Your task to perform on an android device: open app "Pandora - Music & Podcasts" (install if not already installed), go to login, and select forgot password Image 0: 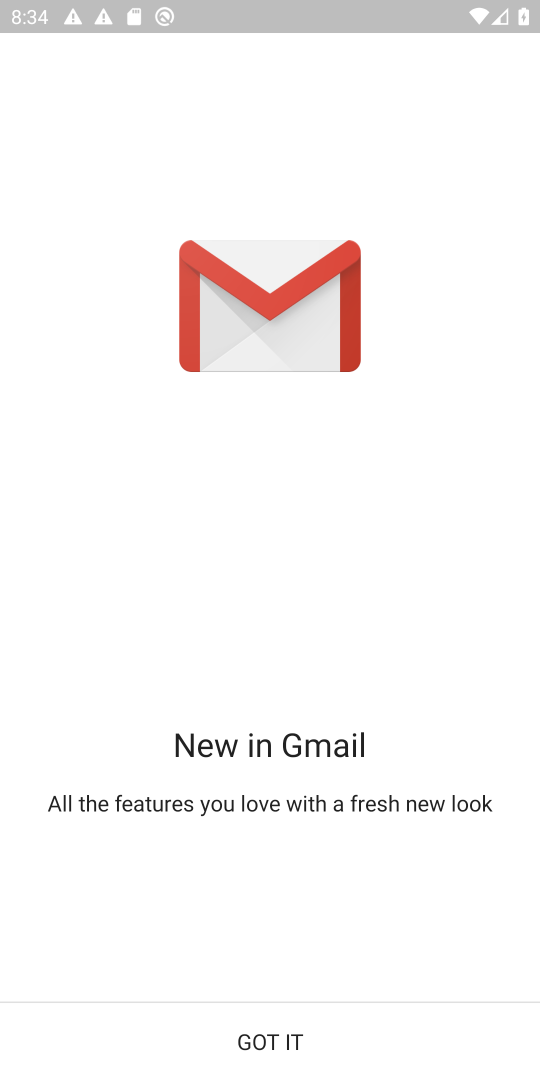
Step 0: press home button
Your task to perform on an android device: open app "Pandora - Music & Podcasts" (install if not already installed), go to login, and select forgot password Image 1: 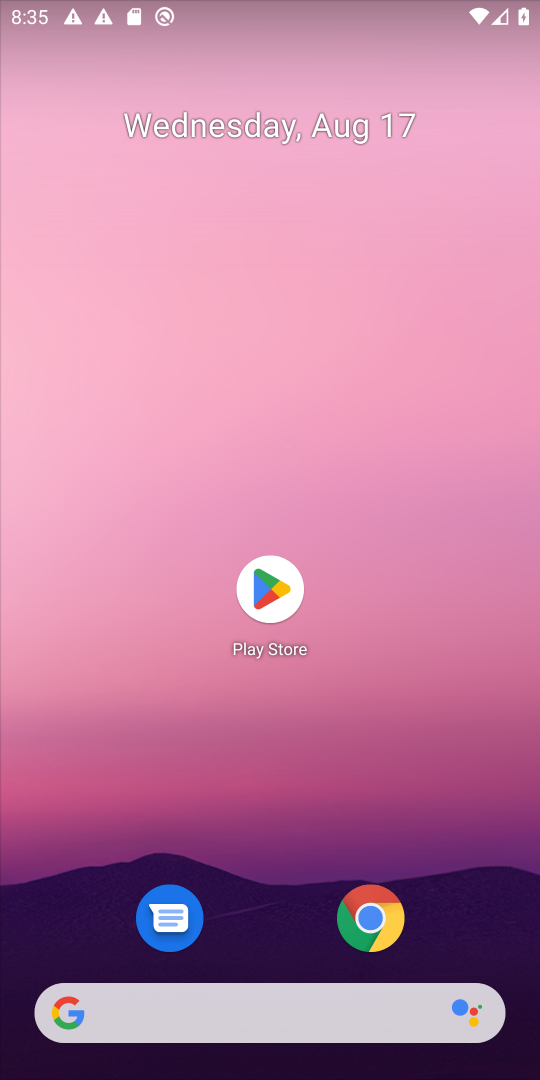
Step 1: click (271, 592)
Your task to perform on an android device: open app "Pandora - Music & Podcasts" (install if not already installed), go to login, and select forgot password Image 2: 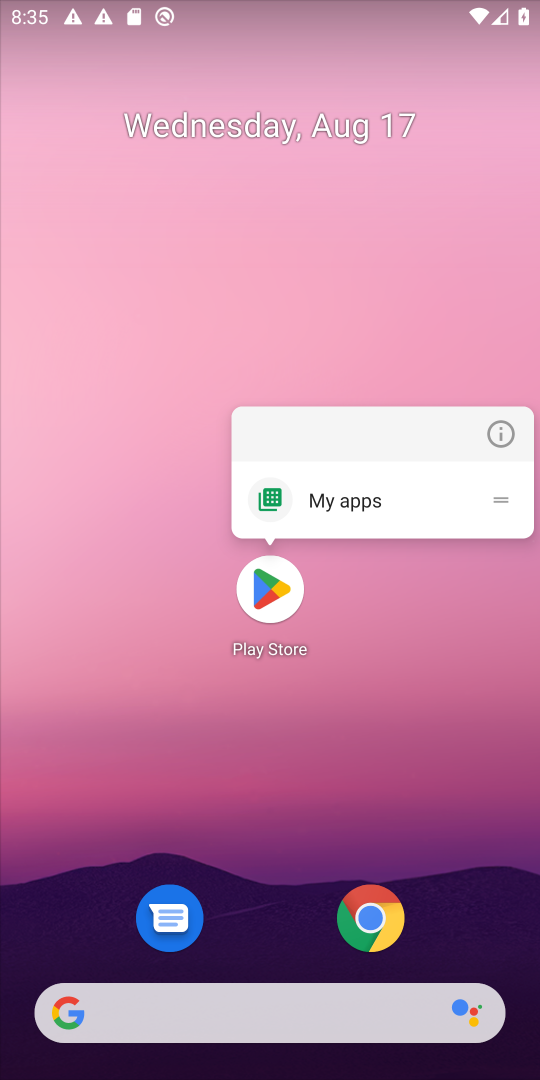
Step 2: click (273, 592)
Your task to perform on an android device: open app "Pandora - Music & Podcasts" (install if not already installed), go to login, and select forgot password Image 3: 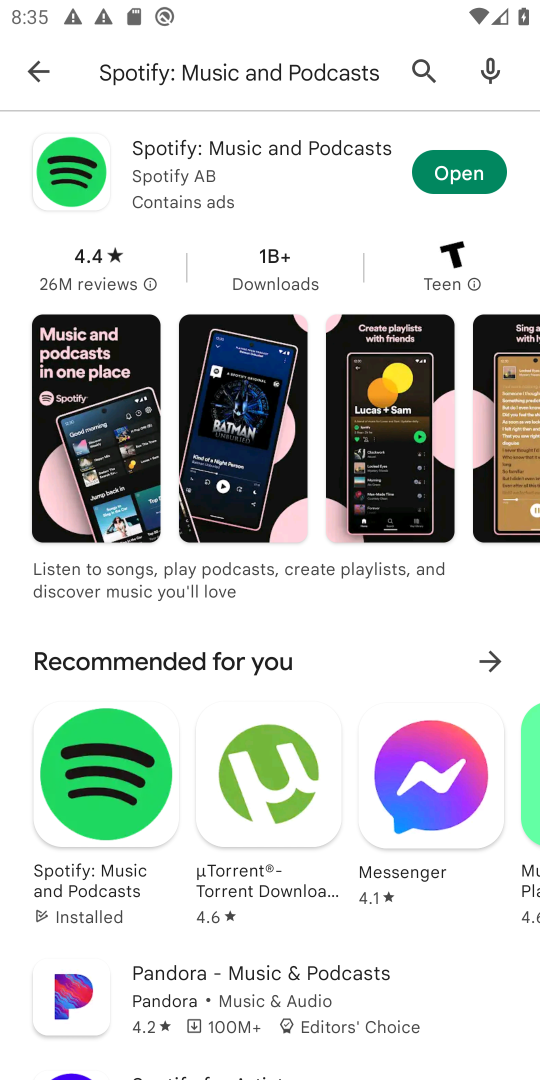
Step 3: click (415, 73)
Your task to perform on an android device: open app "Pandora - Music & Podcasts" (install if not already installed), go to login, and select forgot password Image 4: 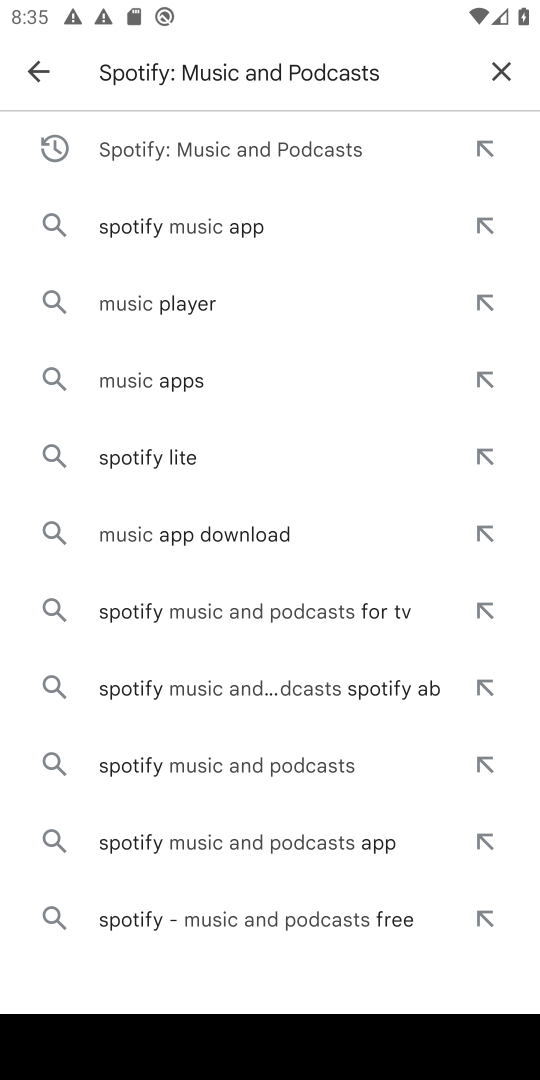
Step 4: click (494, 58)
Your task to perform on an android device: open app "Pandora - Music & Podcasts" (install if not already installed), go to login, and select forgot password Image 5: 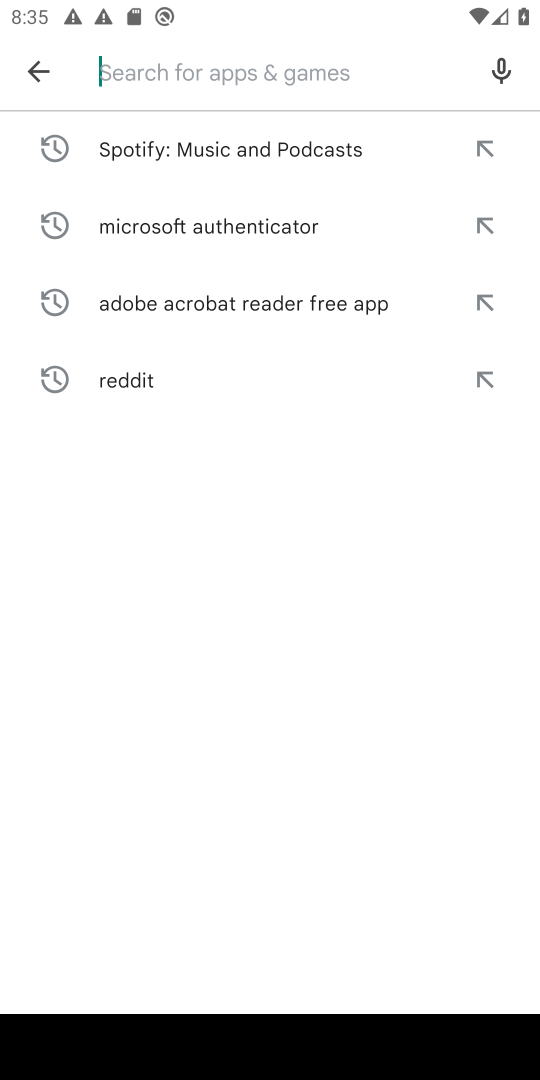
Step 5: type "Pandora - Music & Podcasts"
Your task to perform on an android device: open app "Pandora - Music & Podcasts" (install if not already installed), go to login, and select forgot password Image 6: 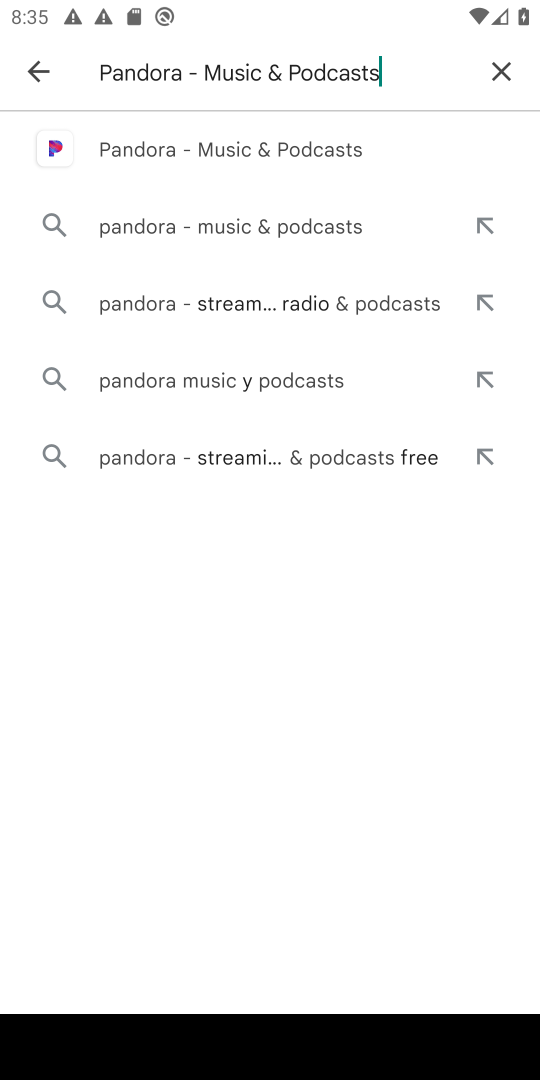
Step 6: click (260, 153)
Your task to perform on an android device: open app "Pandora - Music & Podcasts" (install if not already installed), go to login, and select forgot password Image 7: 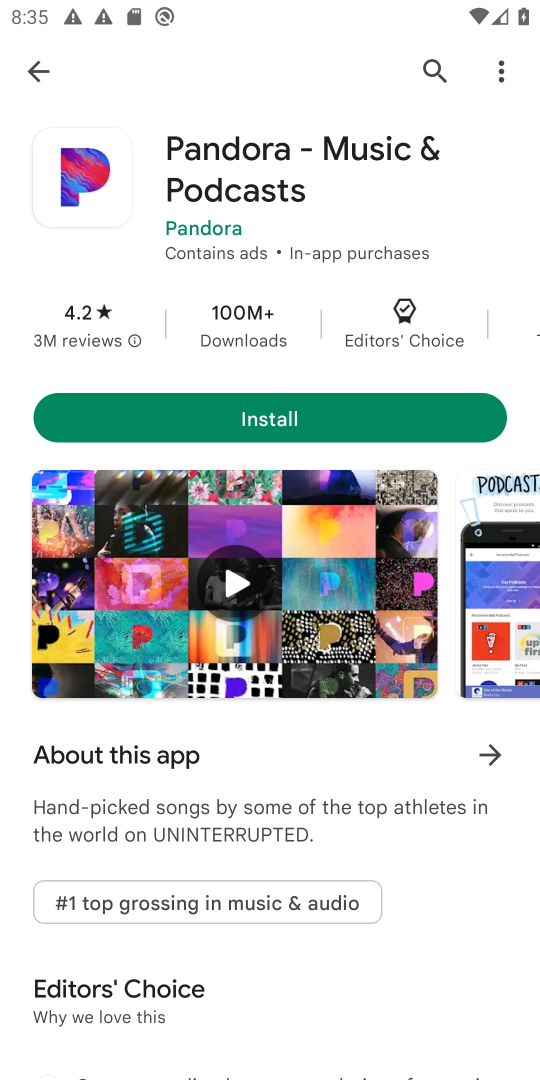
Step 7: click (288, 418)
Your task to perform on an android device: open app "Pandora - Music & Podcasts" (install if not already installed), go to login, and select forgot password Image 8: 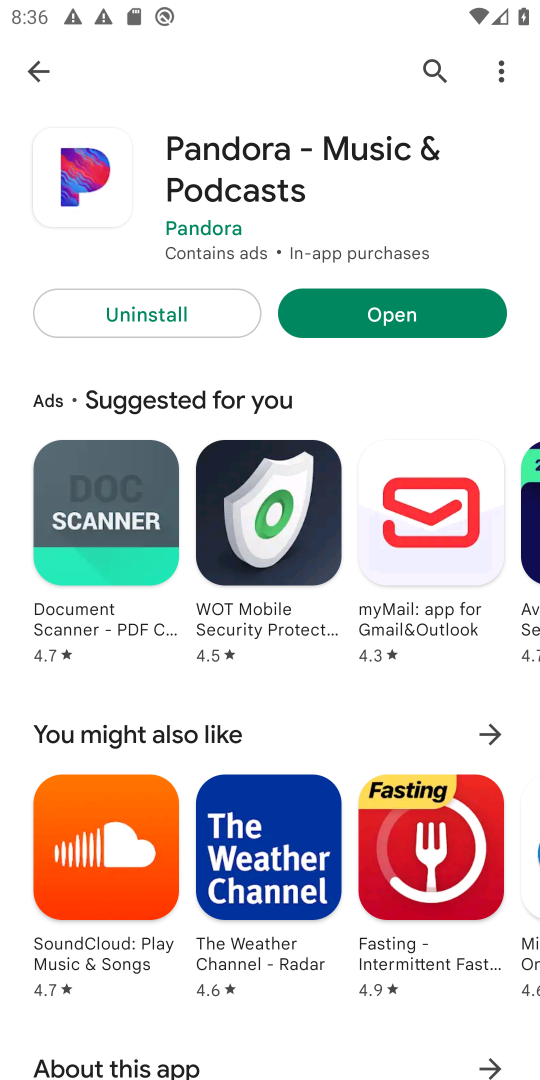
Step 8: click (417, 316)
Your task to perform on an android device: open app "Pandora - Music & Podcasts" (install if not already installed), go to login, and select forgot password Image 9: 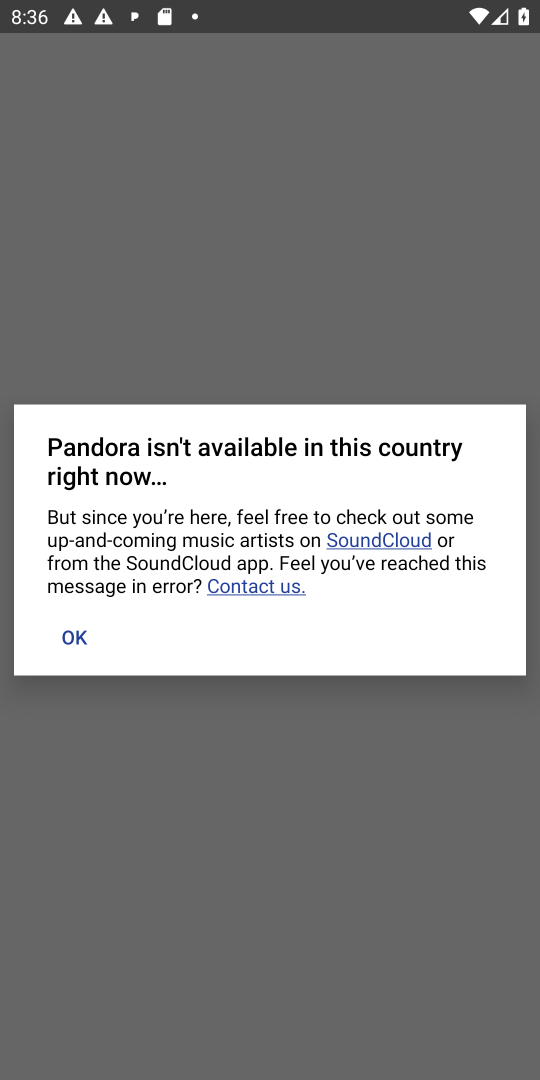
Step 9: click (78, 640)
Your task to perform on an android device: open app "Pandora - Music & Podcasts" (install if not already installed), go to login, and select forgot password Image 10: 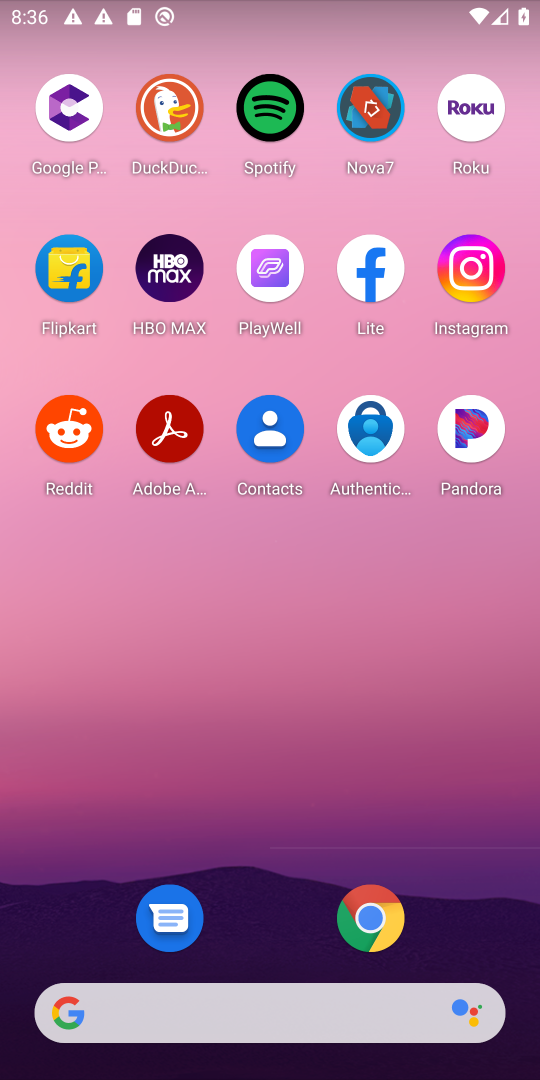
Step 10: task complete